Your task to perform on an android device: turn on showing notifications on the lock screen Image 0: 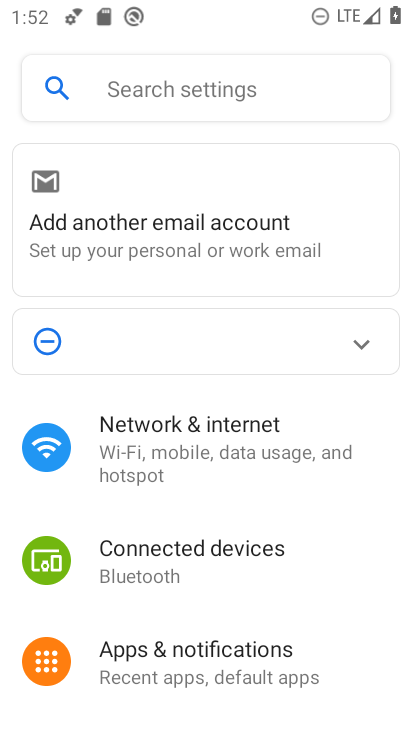
Step 0: drag from (246, 608) to (260, 368)
Your task to perform on an android device: turn on showing notifications on the lock screen Image 1: 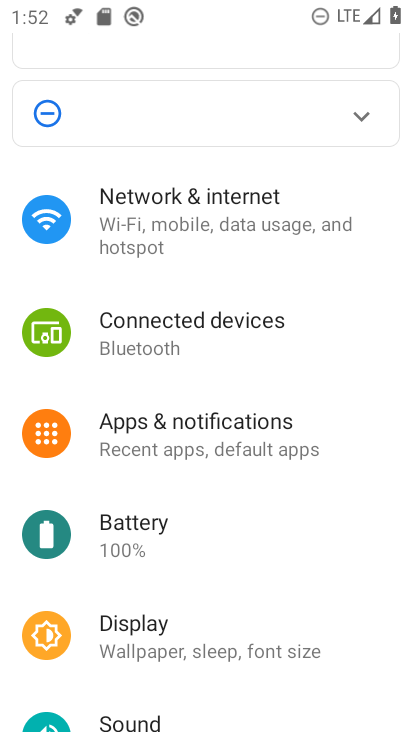
Step 1: click (234, 415)
Your task to perform on an android device: turn on showing notifications on the lock screen Image 2: 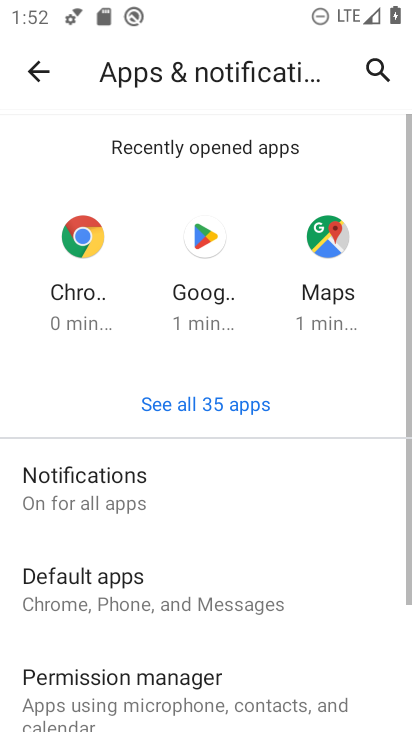
Step 2: click (133, 484)
Your task to perform on an android device: turn on showing notifications on the lock screen Image 3: 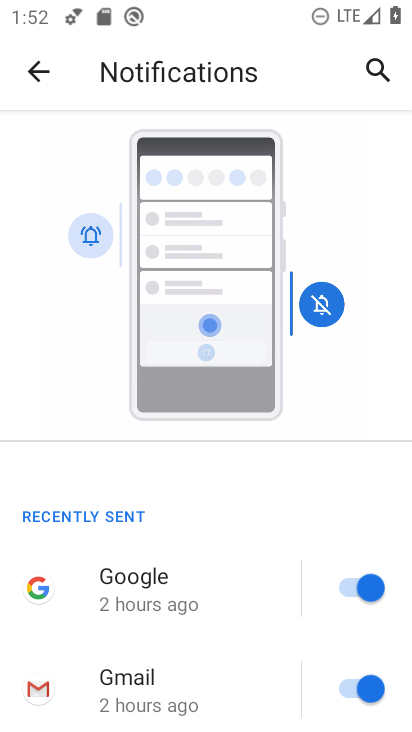
Step 3: drag from (229, 536) to (244, 157)
Your task to perform on an android device: turn on showing notifications on the lock screen Image 4: 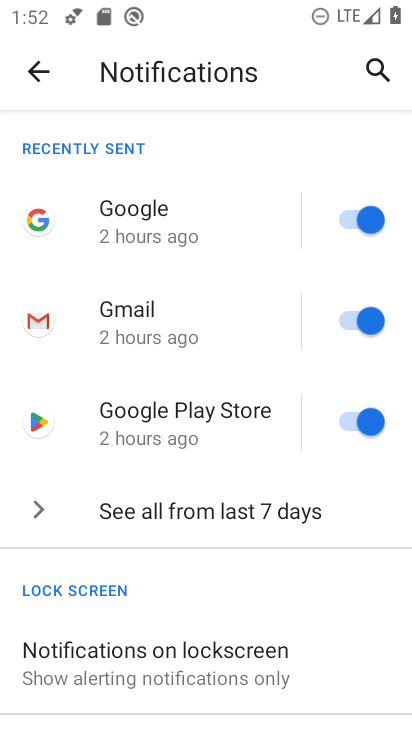
Step 4: drag from (221, 621) to (217, 268)
Your task to perform on an android device: turn on showing notifications on the lock screen Image 5: 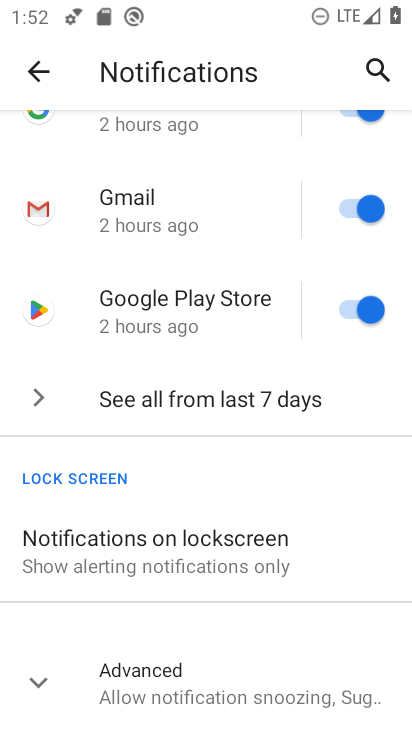
Step 5: click (158, 530)
Your task to perform on an android device: turn on showing notifications on the lock screen Image 6: 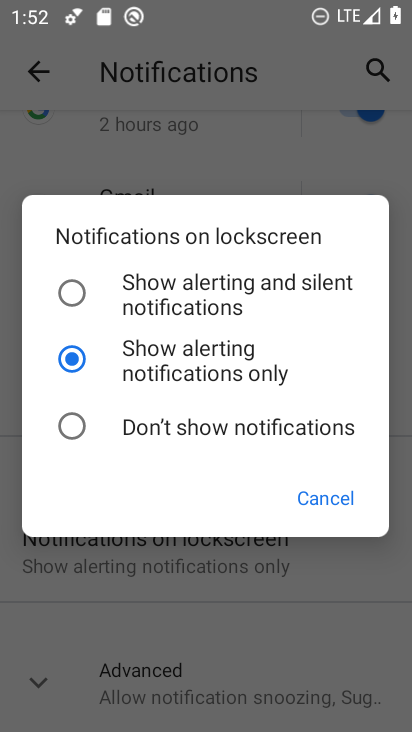
Step 6: task complete